Your task to perform on an android device: Open network settings Image 0: 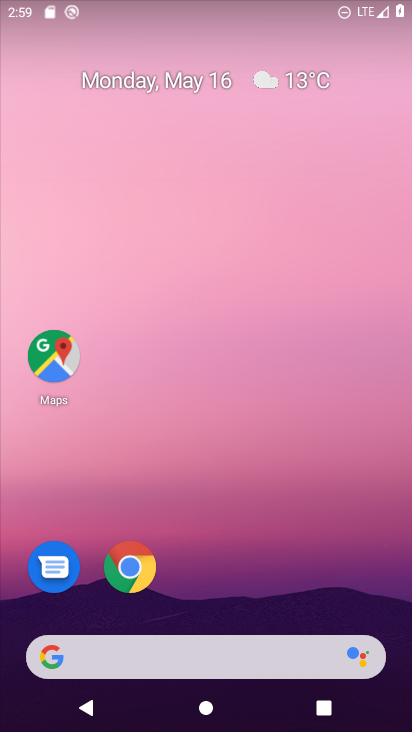
Step 0: drag from (342, 589) to (274, 84)
Your task to perform on an android device: Open network settings Image 1: 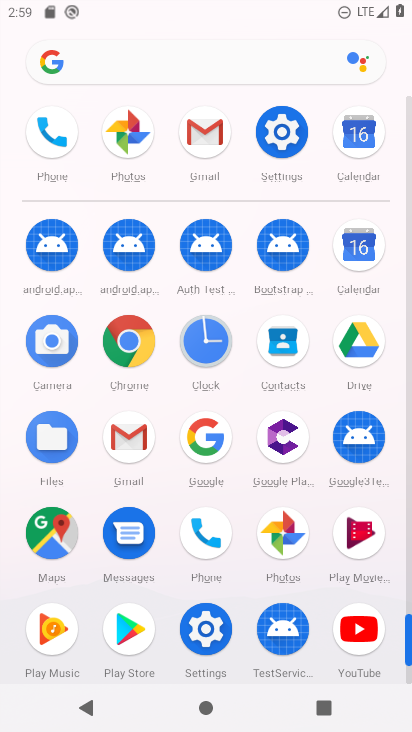
Step 1: click (282, 141)
Your task to perform on an android device: Open network settings Image 2: 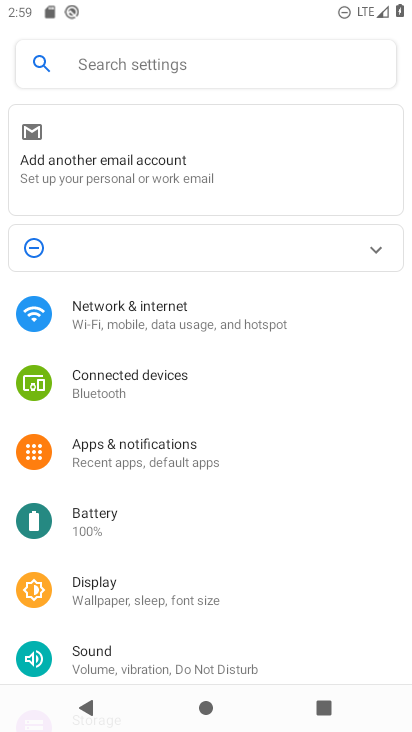
Step 2: click (201, 317)
Your task to perform on an android device: Open network settings Image 3: 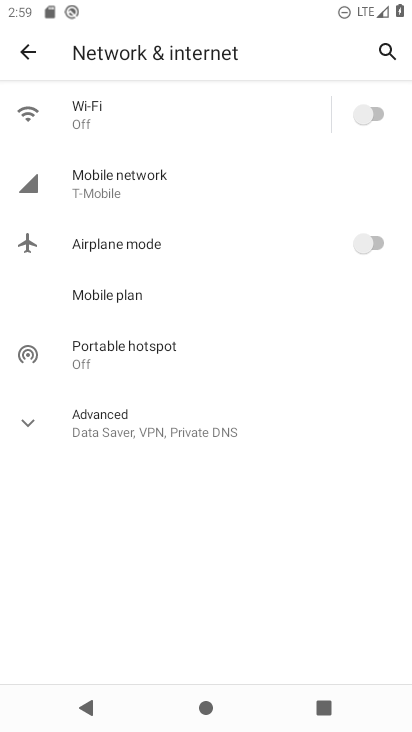
Step 3: task complete